Your task to perform on an android device: toggle location history Image 0: 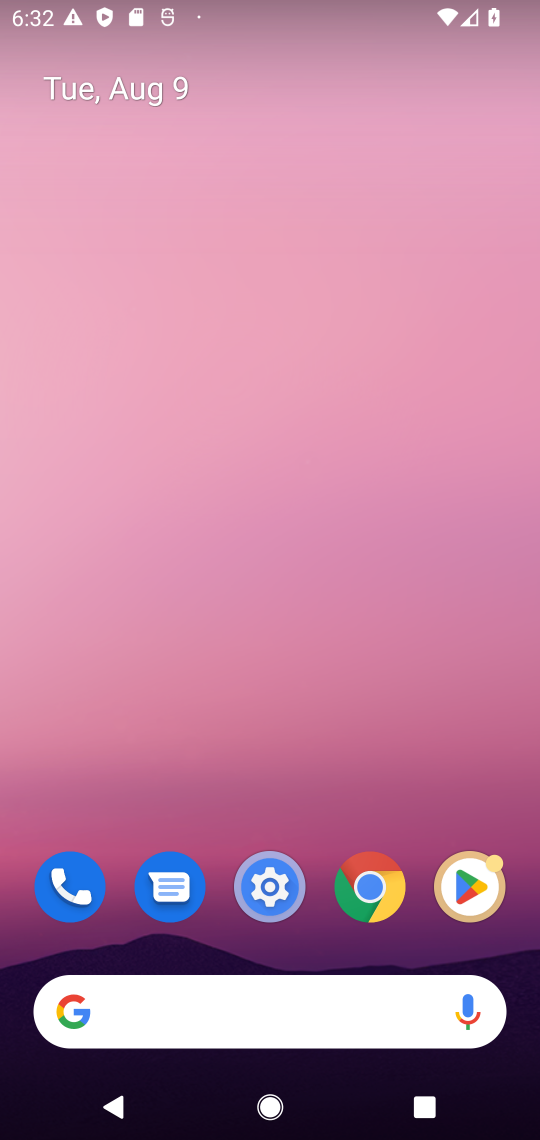
Step 0: click (274, 883)
Your task to perform on an android device: toggle location history Image 1: 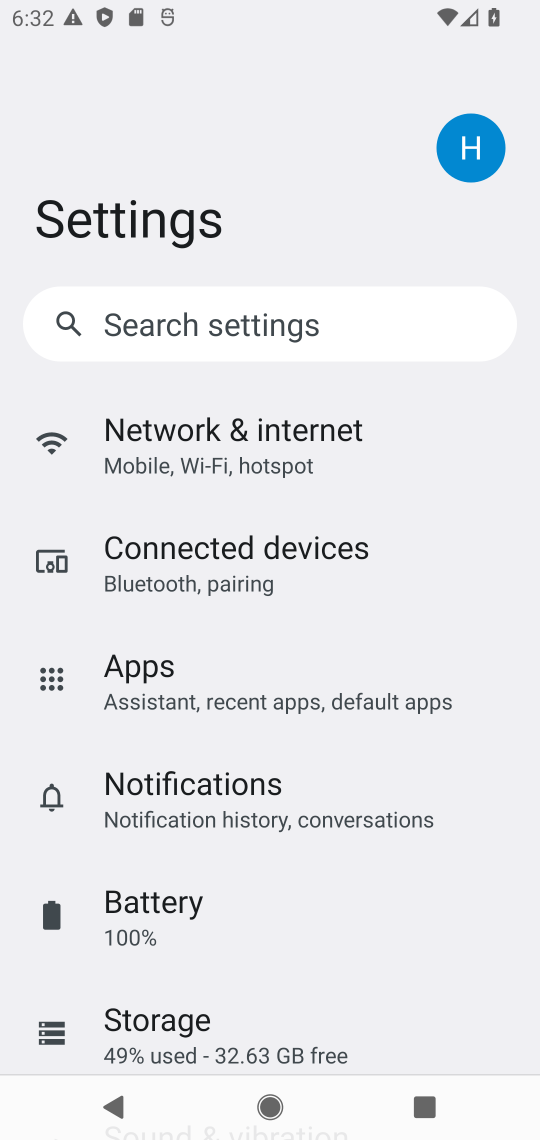
Step 1: drag from (295, 920) to (381, 54)
Your task to perform on an android device: toggle location history Image 2: 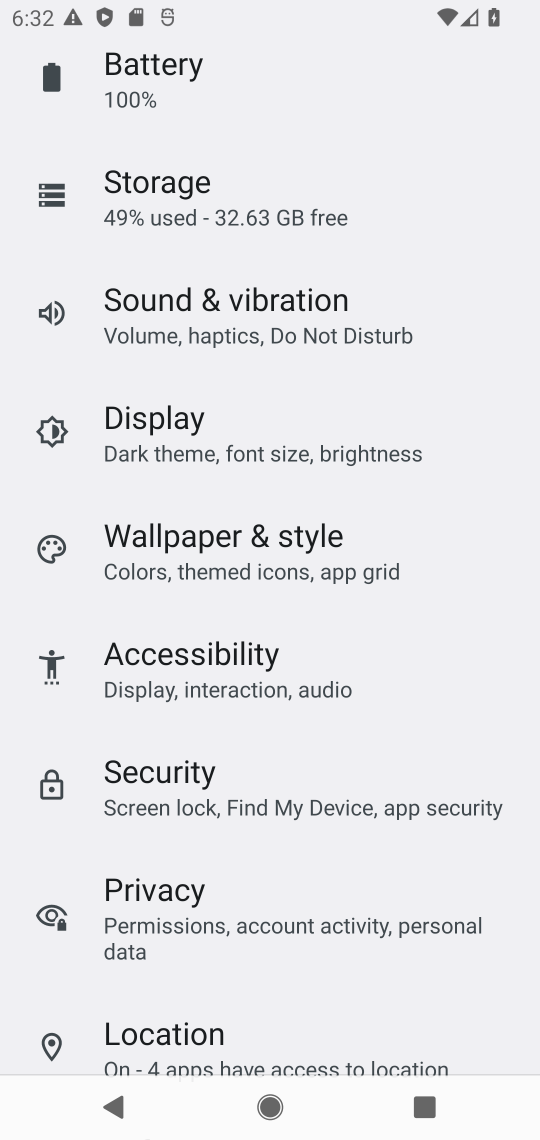
Step 2: click (252, 1035)
Your task to perform on an android device: toggle location history Image 3: 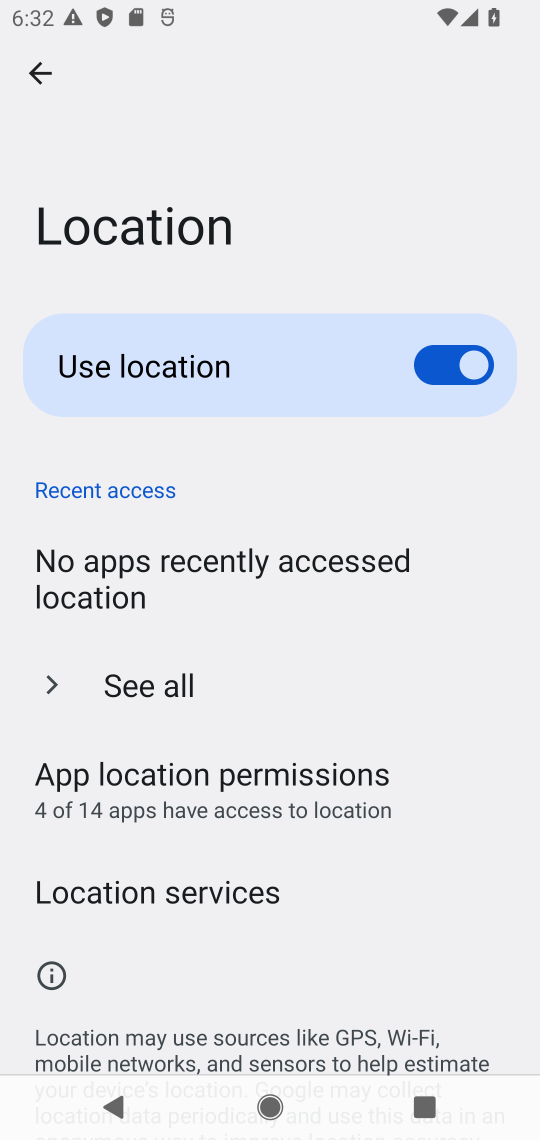
Step 3: click (271, 891)
Your task to perform on an android device: toggle location history Image 4: 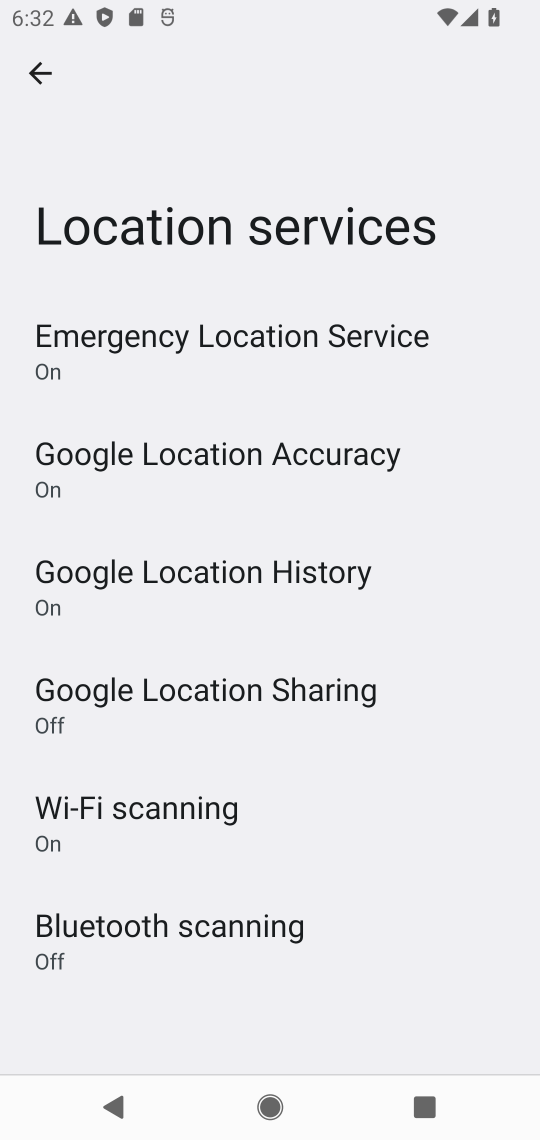
Step 4: click (330, 577)
Your task to perform on an android device: toggle location history Image 5: 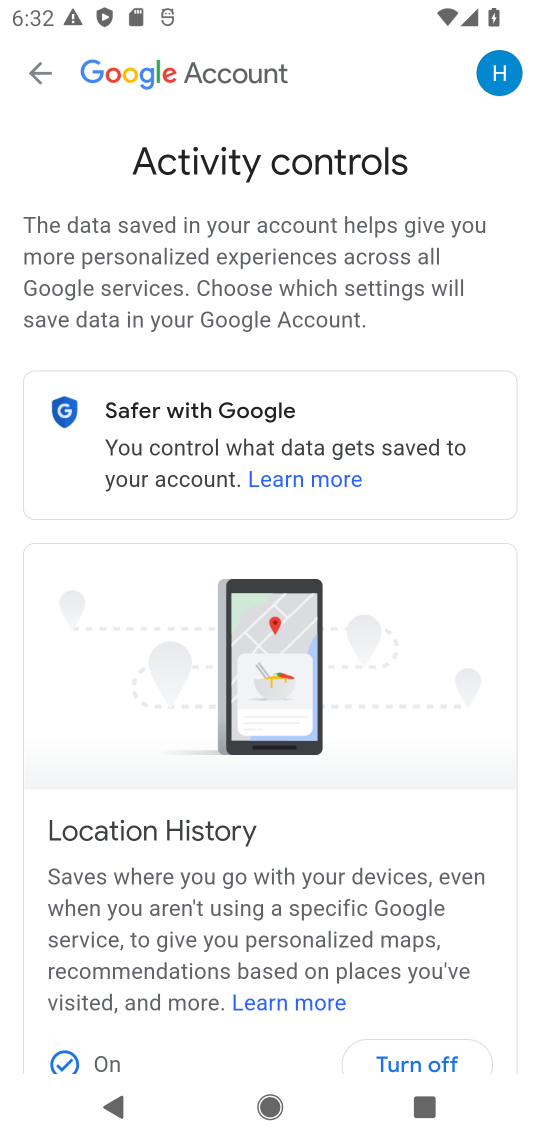
Step 5: drag from (361, 736) to (379, 531)
Your task to perform on an android device: toggle location history Image 6: 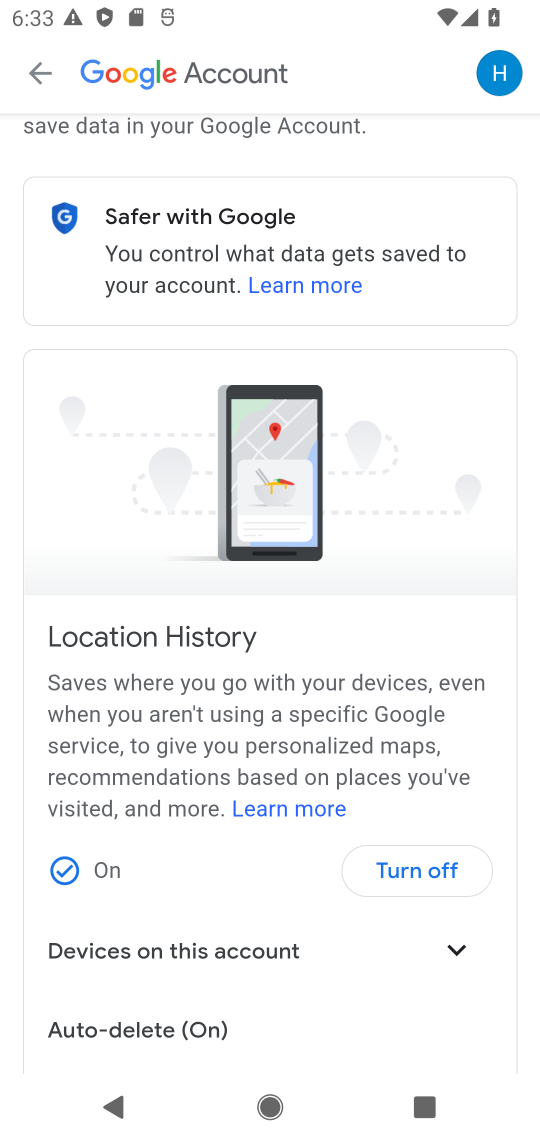
Step 6: click (428, 871)
Your task to perform on an android device: toggle location history Image 7: 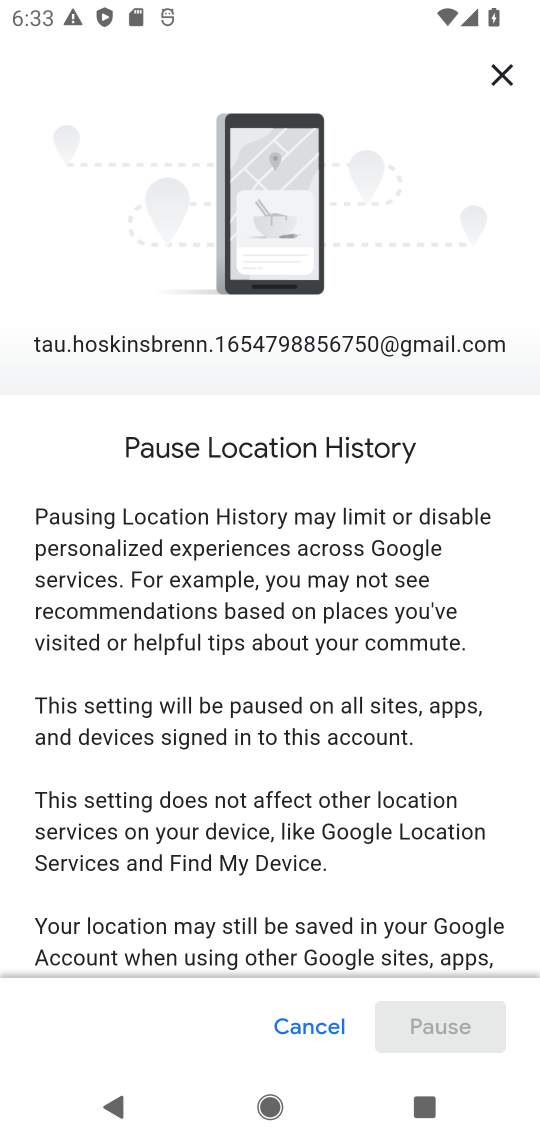
Step 7: drag from (429, 862) to (425, 50)
Your task to perform on an android device: toggle location history Image 8: 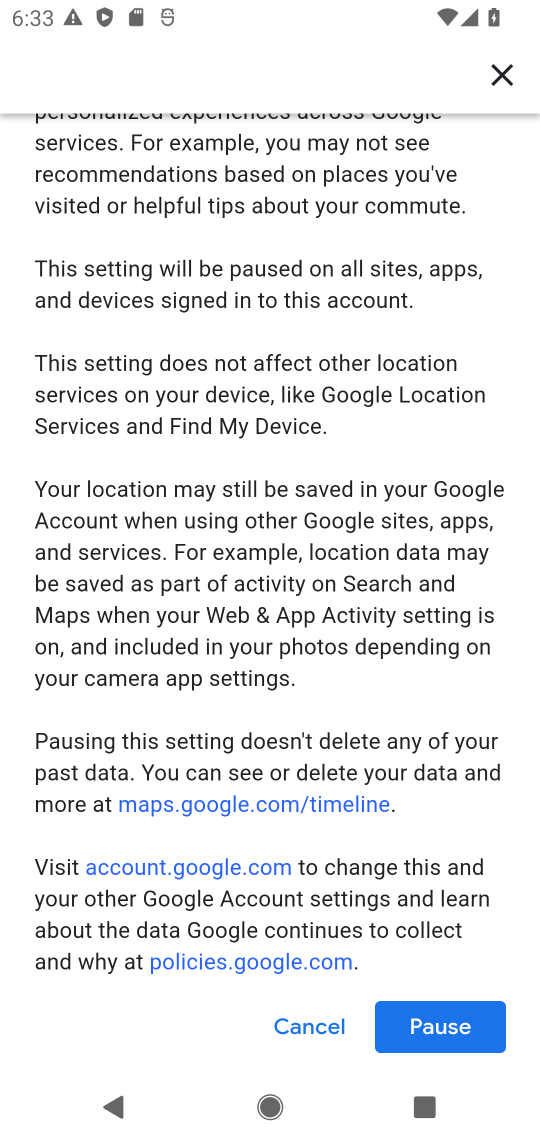
Step 8: click (443, 1037)
Your task to perform on an android device: toggle location history Image 9: 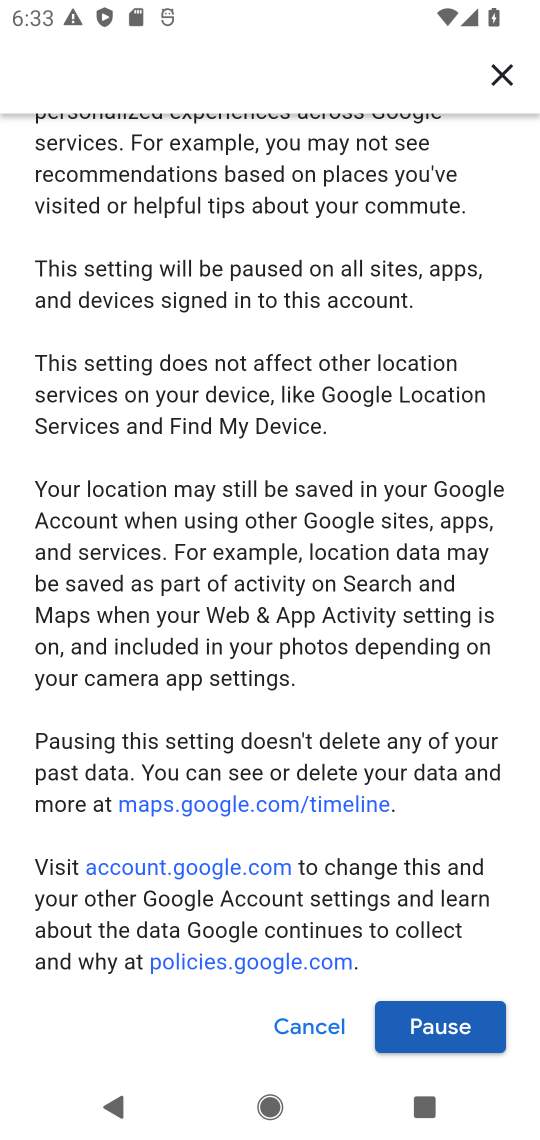
Step 9: click (449, 1020)
Your task to perform on an android device: toggle location history Image 10: 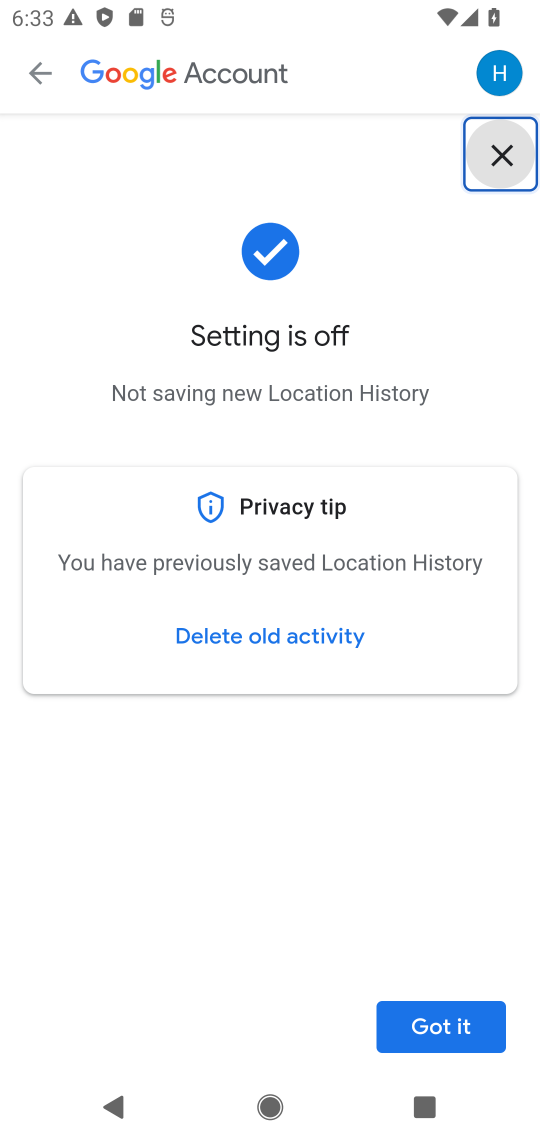
Step 10: click (449, 1018)
Your task to perform on an android device: toggle location history Image 11: 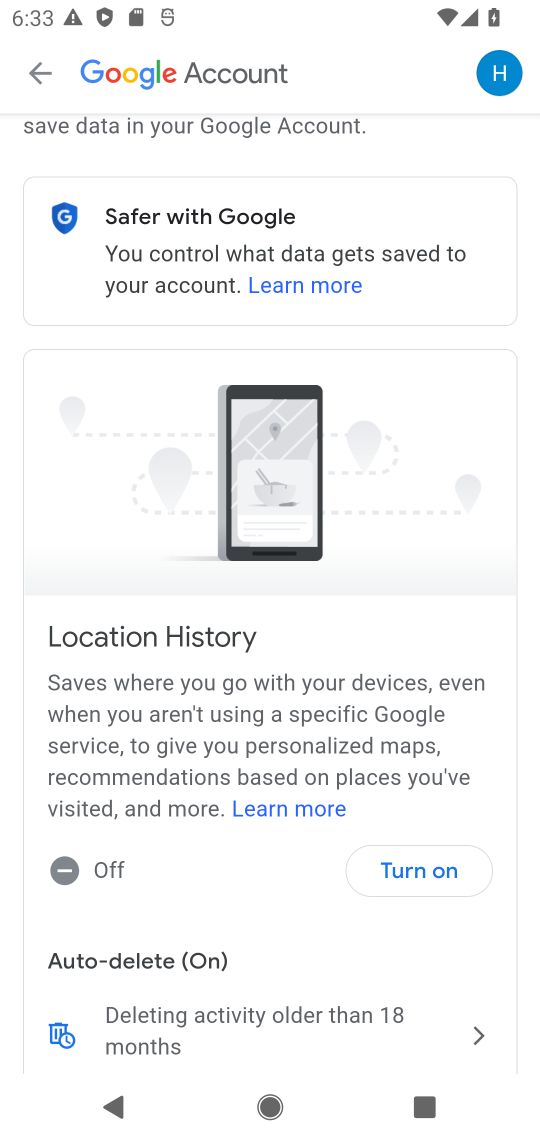
Step 11: task complete